Your task to perform on an android device: toggle show notifications on the lock screen Image 0: 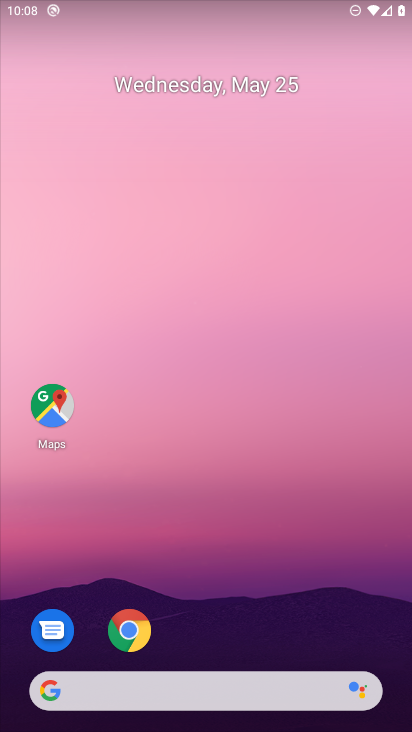
Step 0: drag from (206, 649) to (205, 329)
Your task to perform on an android device: toggle show notifications on the lock screen Image 1: 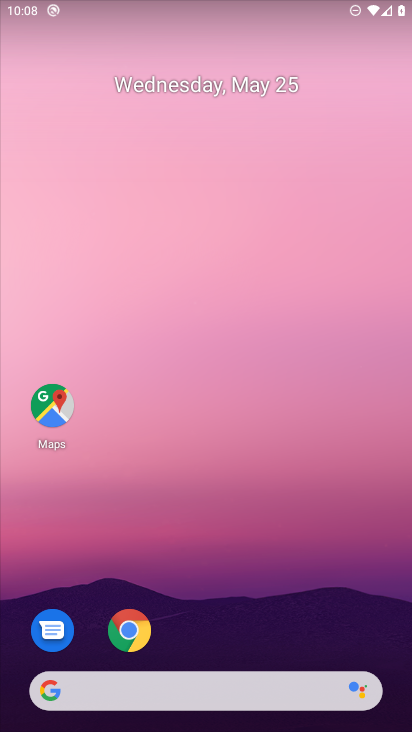
Step 1: drag from (215, 664) to (222, 245)
Your task to perform on an android device: toggle show notifications on the lock screen Image 2: 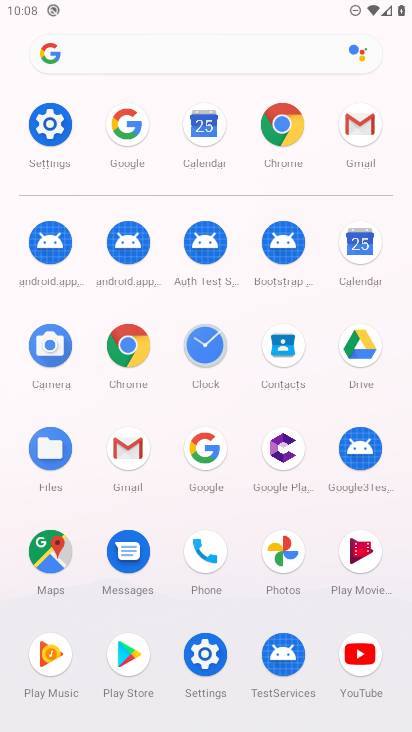
Step 2: click (52, 125)
Your task to perform on an android device: toggle show notifications on the lock screen Image 3: 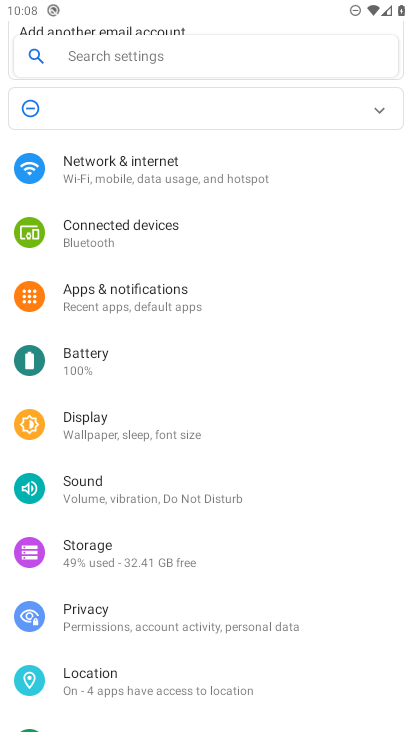
Step 3: click (93, 617)
Your task to perform on an android device: toggle show notifications on the lock screen Image 4: 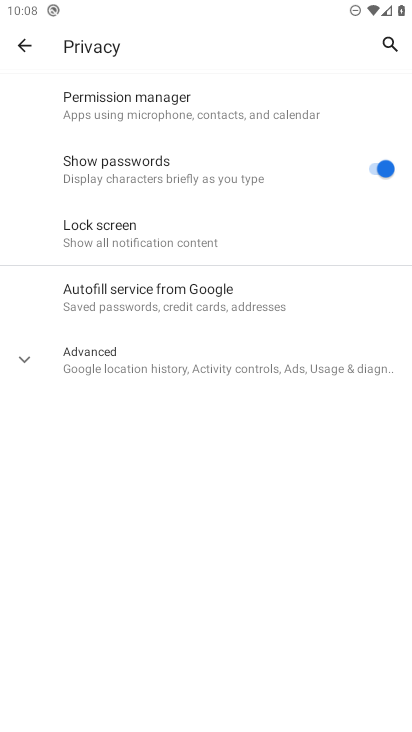
Step 4: click (117, 232)
Your task to perform on an android device: toggle show notifications on the lock screen Image 5: 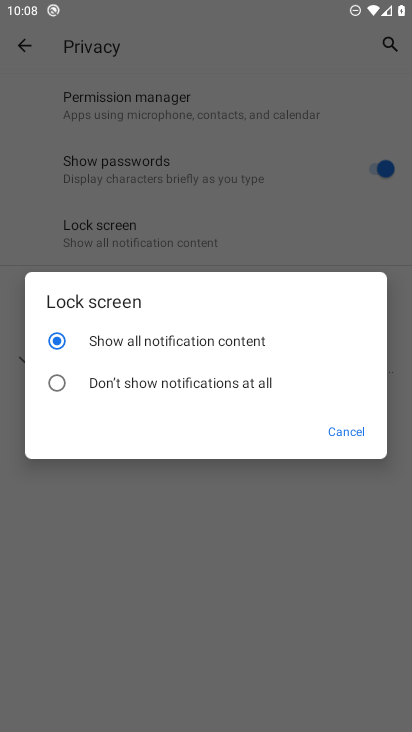
Step 5: click (129, 394)
Your task to perform on an android device: toggle show notifications on the lock screen Image 6: 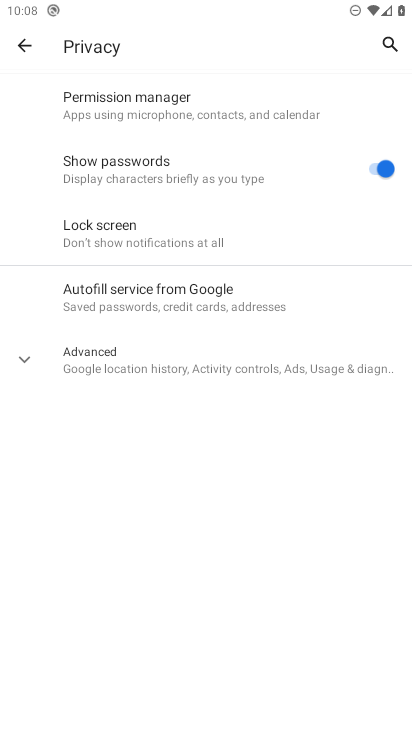
Step 6: task complete